Your task to perform on an android device: open chrome privacy settings Image 0: 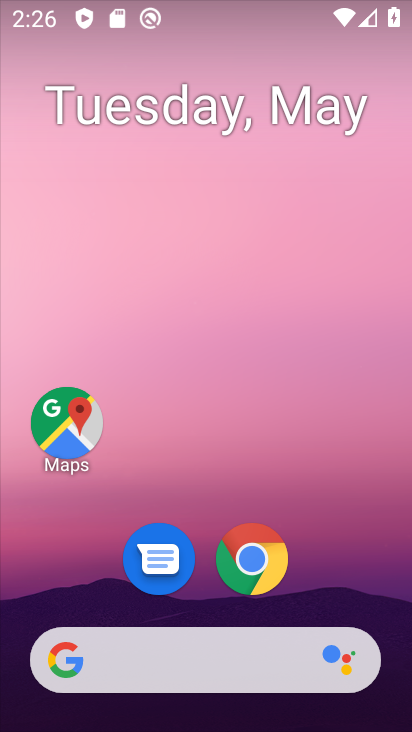
Step 0: click (248, 561)
Your task to perform on an android device: open chrome privacy settings Image 1: 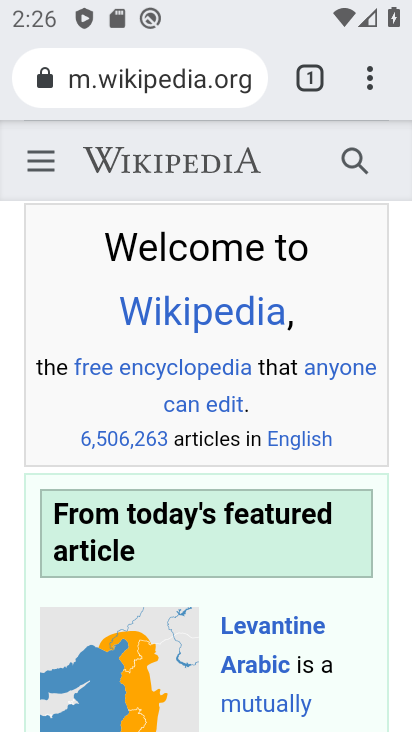
Step 1: click (369, 64)
Your task to perform on an android device: open chrome privacy settings Image 2: 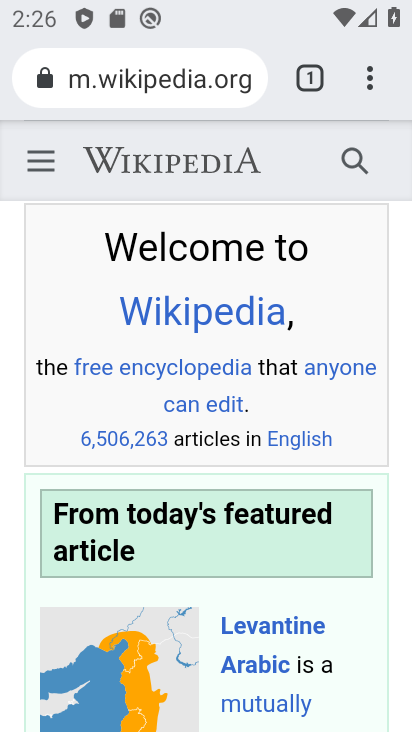
Step 2: click (363, 91)
Your task to perform on an android device: open chrome privacy settings Image 3: 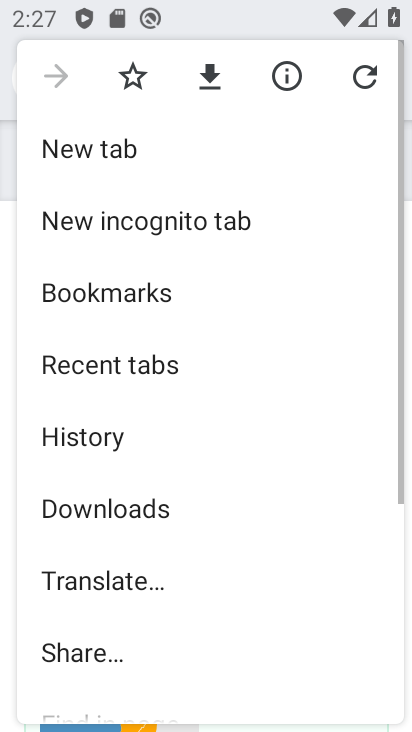
Step 3: drag from (165, 526) to (185, 320)
Your task to perform on an android device: open chrome privacy settings Image 4: 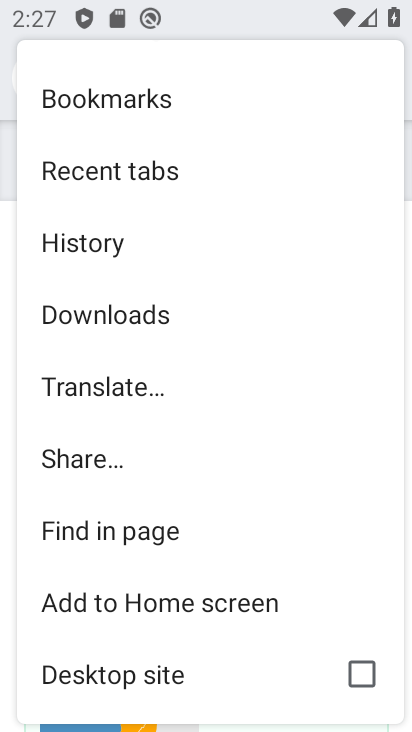
Step 4: drag from (169, 606) to (207, 233)
Your task to perform on an android device: open chrome privacy settings Image 5: 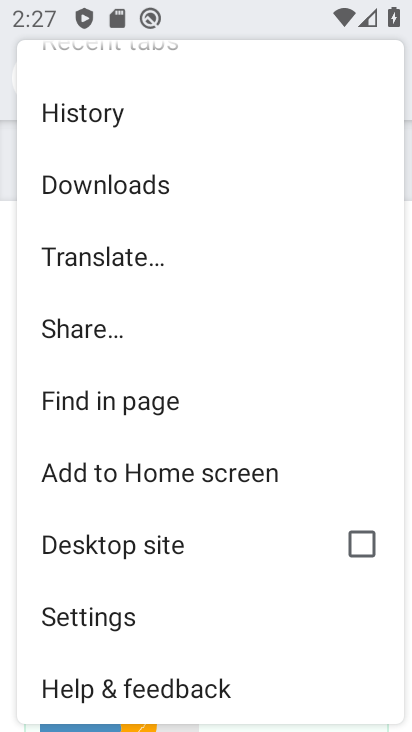
Step 5: click (99, 608)
Your task to perform on an android device: open chrome privacy settings Image 6: 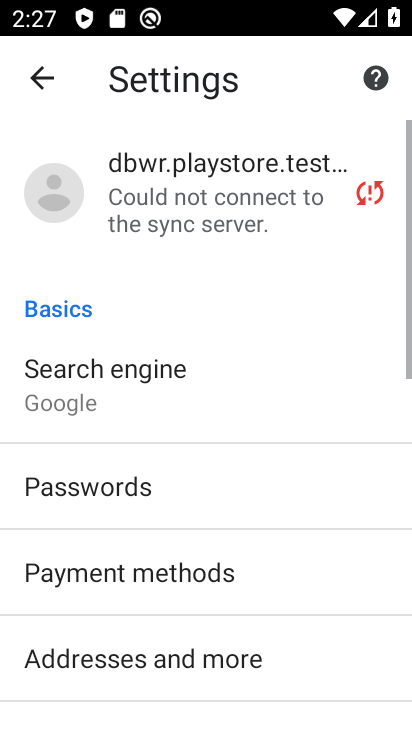
Step 6: drag from (136, 621) to (198, 208)
Your task to perform on an android device: open chrome privacy settings Image 7: 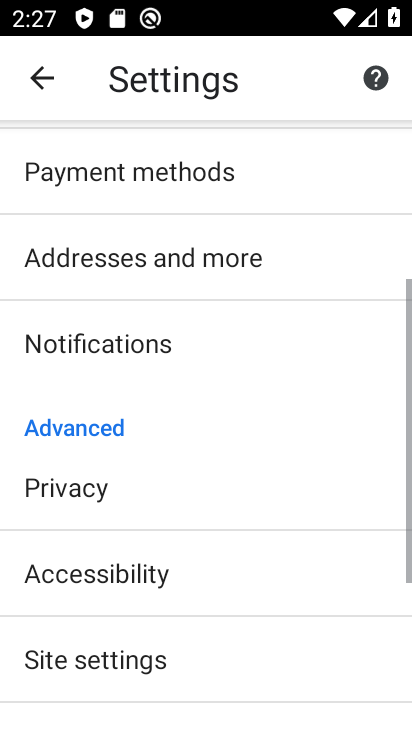
Step 7: drag from (187, 573) to (187, 399)
Your task to perform on an android device: open chrome privacy settings Image 8: 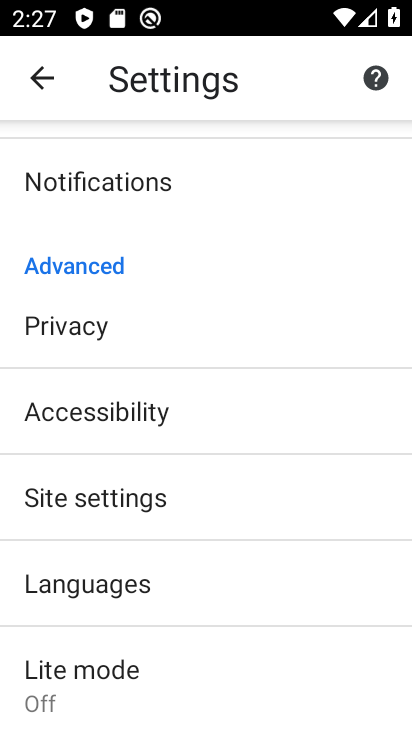
Step 8: click (126, 335)
Your task to perform on an android device: open chrome privacy settings Image 9: 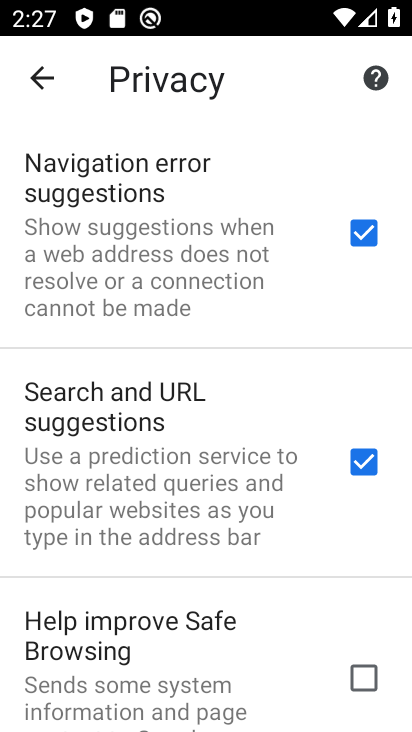
Step 9: task complete